Your task to perform on an android device: Open Chrome and go to the settings page Image 0: 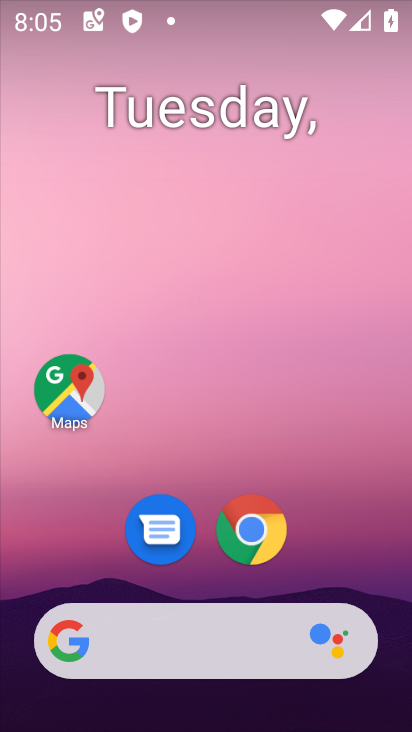
Step 0: drag from (258, 572) to (293, 76)
Your task to perform on an android device: Open Chrome and go to the settings page Image 1: 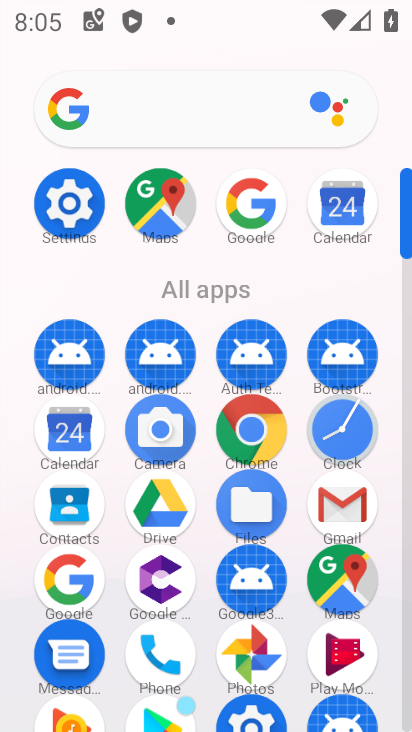
Step 1: click (258, 438)
Your task to perform on an android device: Open Chrome and go to the settings page Image 2: 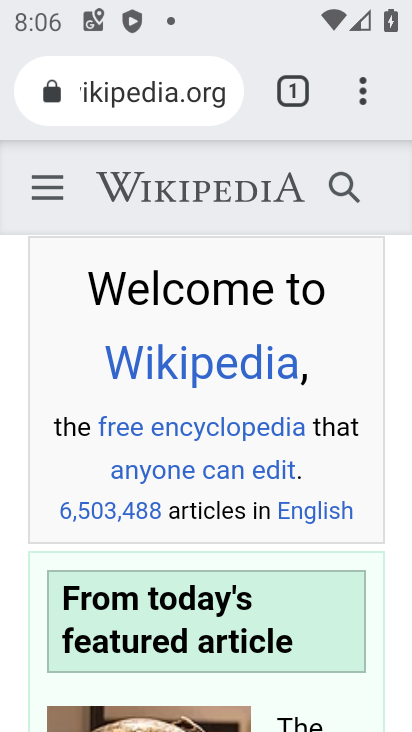
Step 2: click (364, 100)
Your task to perform on an android device: Open Chrome and go to the settings page Image 3: 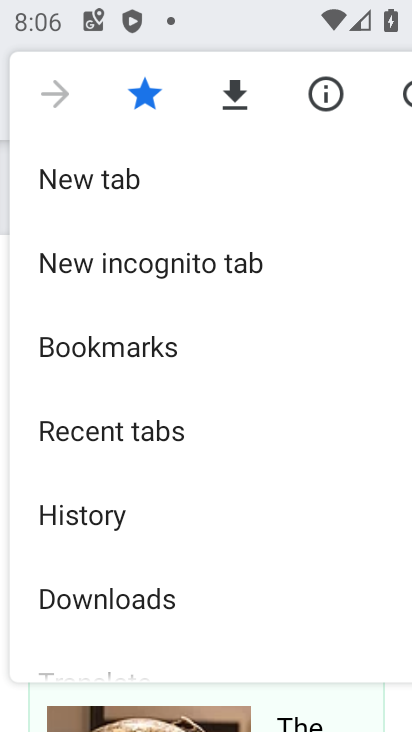
Step 3: drag from (219, 477) to (278, 158)
Your task to perform on an android device: Open Chrome and go to the settings page Image 4: 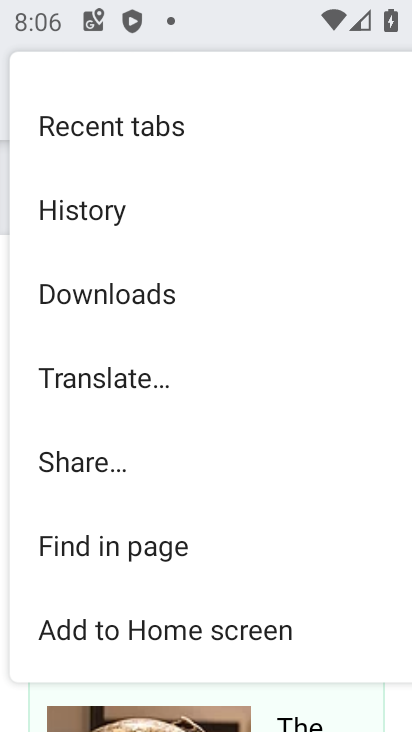
Step 4: drag from (184, 656) to (278, 0)
Your task to perform on an android device: Open Chrome and go to the settings page Image 5: 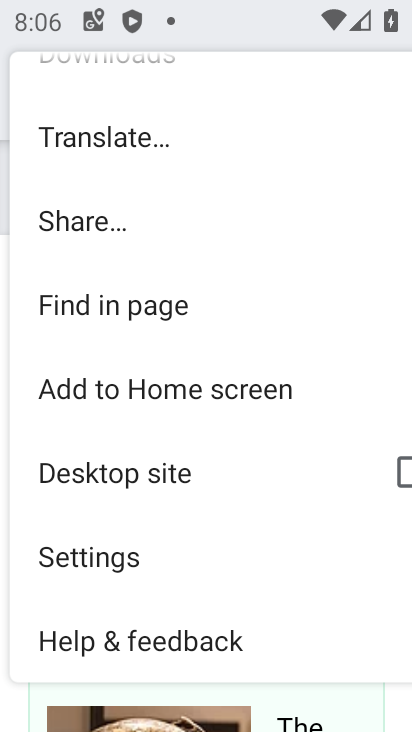
Step 5: click (65, 569)
Your task to perform on an android device: Open Chrome and go to the settings page Image 6: 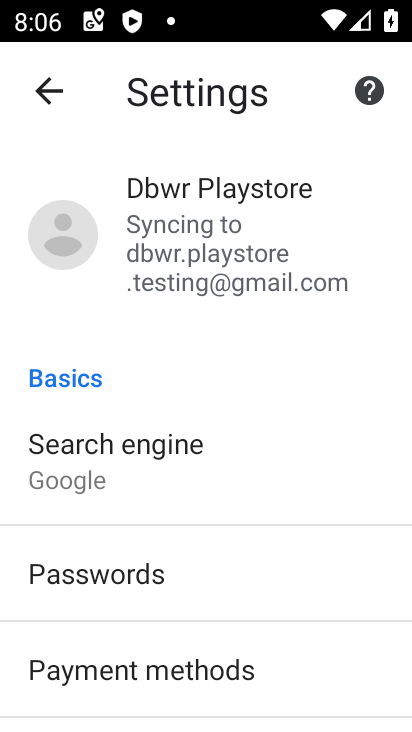
Step 6: task complete